Your task to perform on an android device: Open Maps and search for coffee Image 0: 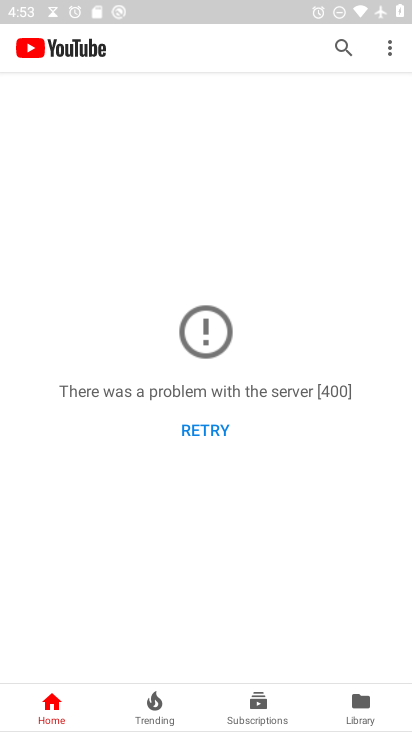
Step 0: drag from (229, 561) to (408, 410)
Your task to perform on an android device: Open Maps and search for coffee Image 1: 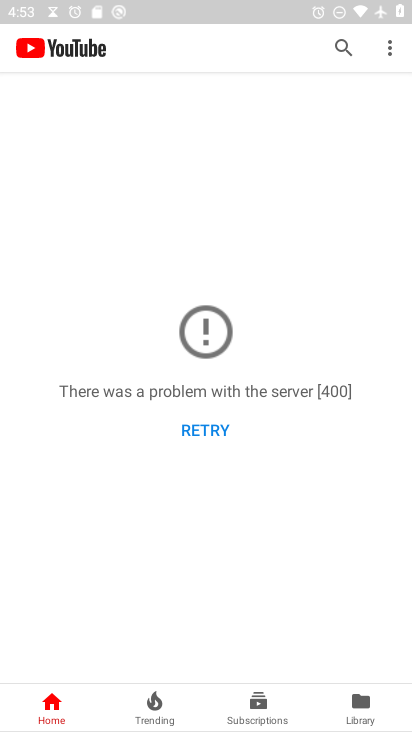
Step 1: press back button
Your task to perform on an android device: Open Maps and search for coffee Image 2: 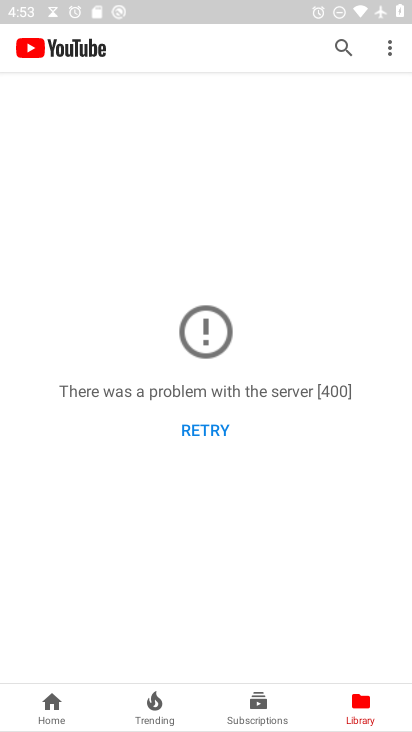
Step 2: press back button
Your task to perform on an android device: Open Maps and search for coffee Image 3: 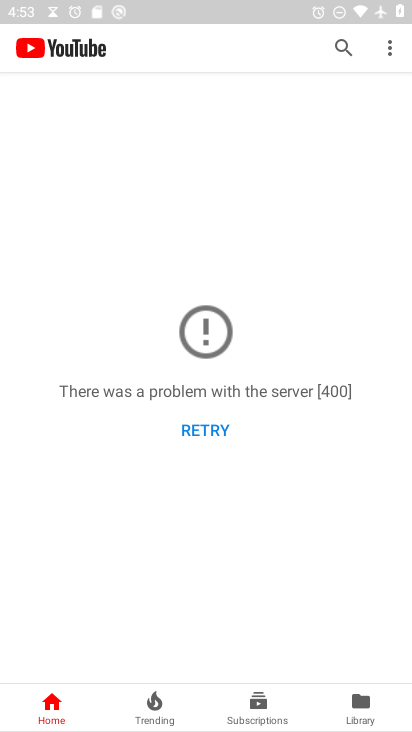
Step 3: press back button
Your task to perform on an android device: Open Maps and search for coffee Image 4: 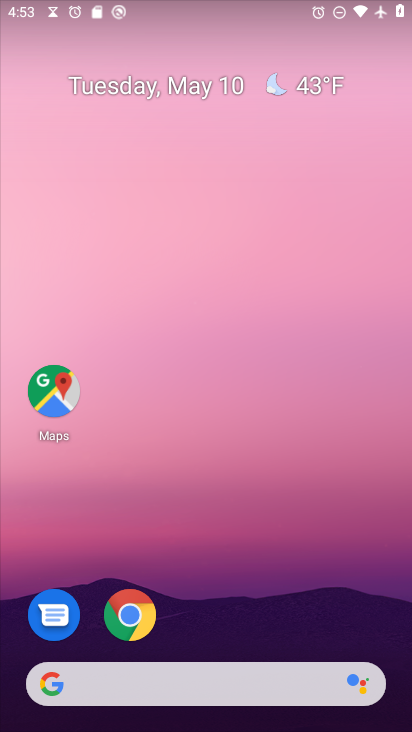
Step 4: click (48, 395)
Your task to perform on an android device: Open Maps and search for coffee Image 5: 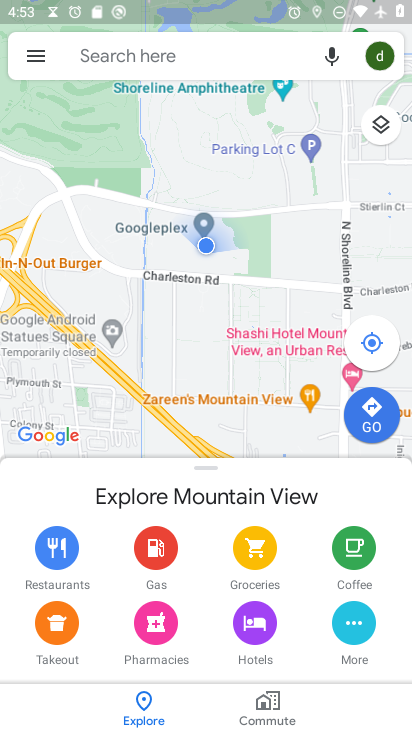
Step 5: click (221, 57)
Your task to perform on an android device: Open Maps and search for coffee Image 6: 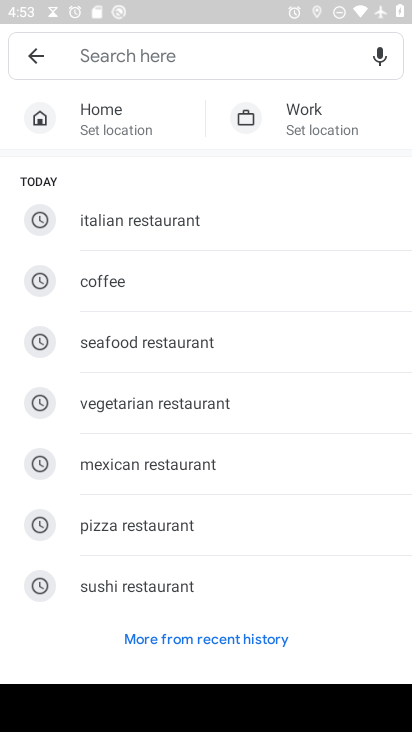
Step 6: click (143, 284)
Your task to perform on an android device: Open Maps and search for coffee Image 7: 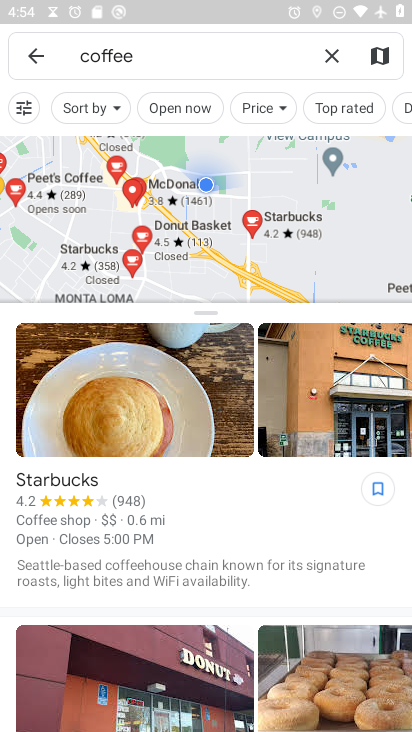
Step 7: task complete